Your task to perform on an android device: toggle priority inbox in the gmail app Image 0: 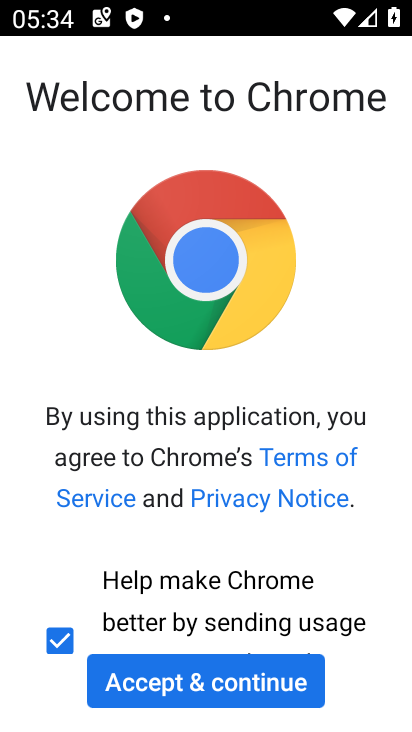
Step 0: click (197, 678)
Your task to perform on an android device: toggle priority inbox in the gmail app Image 1: 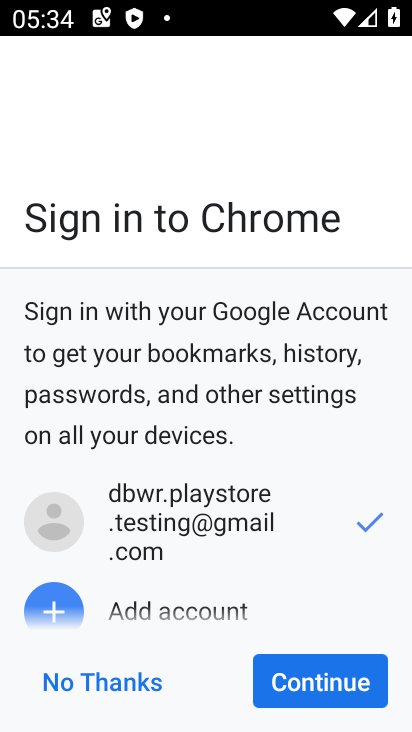
Step 1: click (319, 678)
Your task to perform on an android device: toggle priority inbox in the gmail app Image 2: 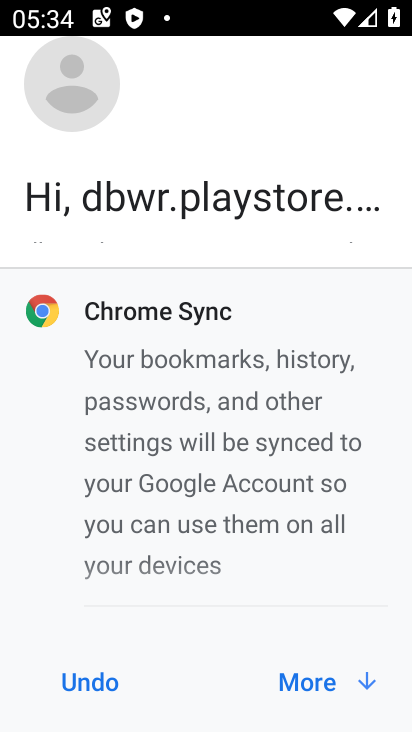
Step 2: click (319, 678)
Your task to perform on an android device: toggle priority inbox in the gmail app Image 3: 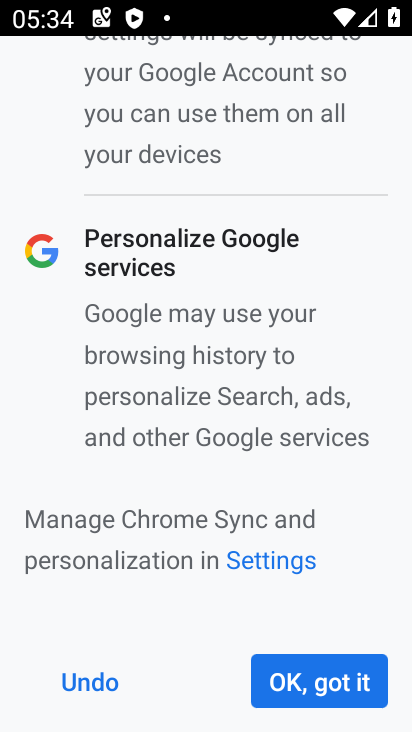
Step 3: click (319, 678)
Your task to perform on an android device: toggle priority inbox in the gmail app Image 4: 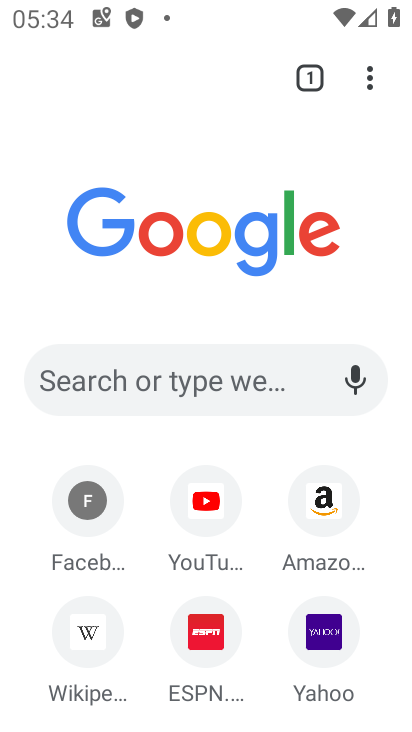
Step 4: drag from (251, 625) to (229, 298)
Your task to perform on an android device: toggle priority inbox in the gmail app Image 5: 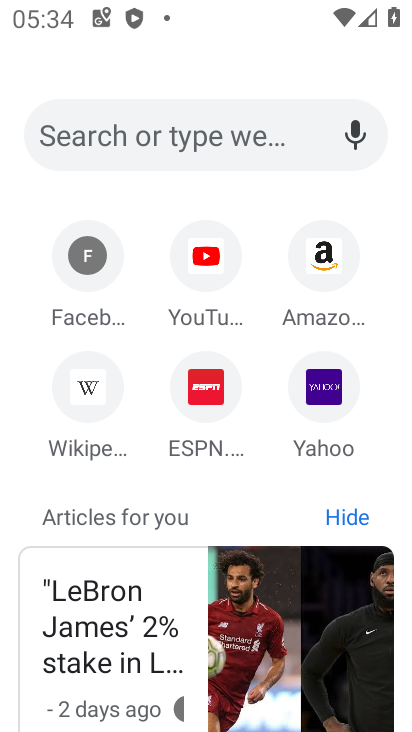
Step 5: press home button
Your task to perform on an android device: toggle priority inbox in the gmail app Image 6: 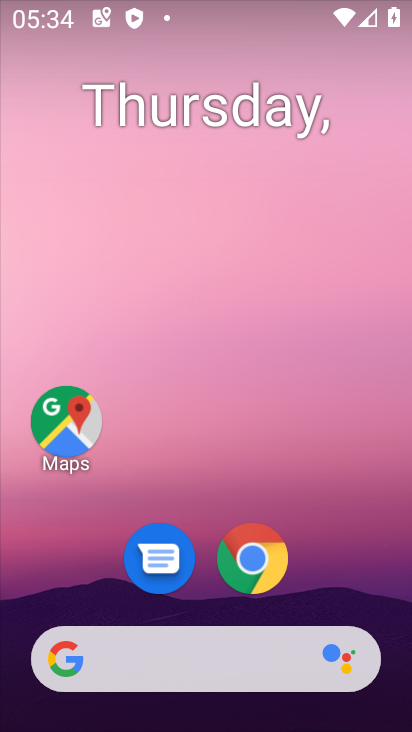
Step 6: drag from (323, 597) to (301, 206)
Your task to perform on an android device: toggle priority inbox in the gmail app Image 7: 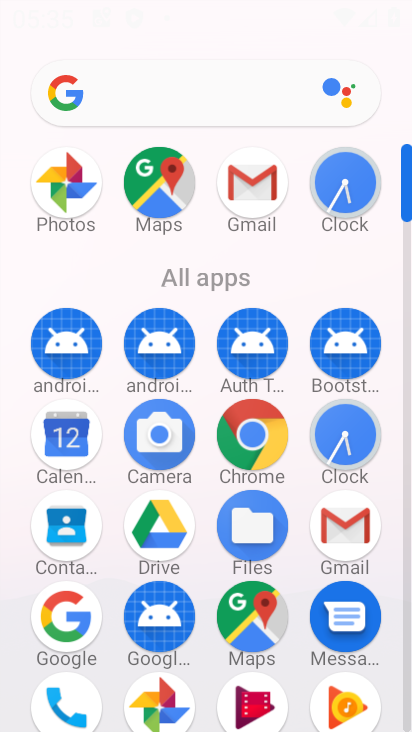
Step 7: click (247, 215)
Your task to perform on an android device: toggle priority inbox in the gmail app Image 8: 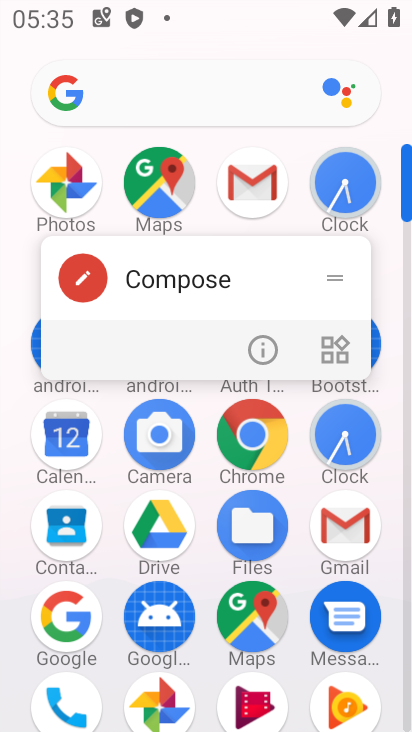
Step 8: click (247, 206)
Your task to perform on an android device: toggle priority inbox in the gmail app Image 9: 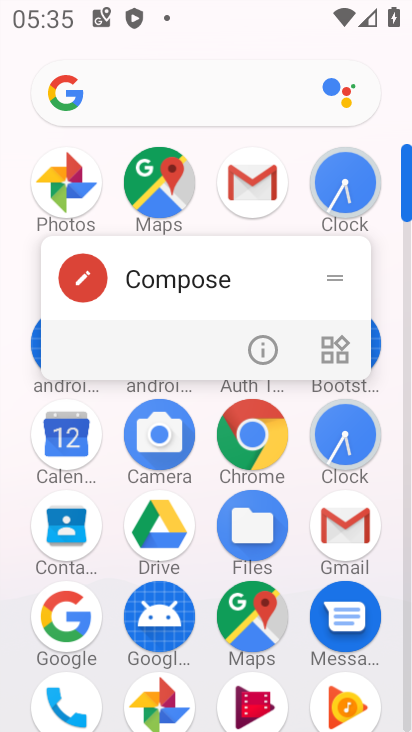
Step 9: click (249, 179)
Your task to perform on an android device: toggle priority inbox in the gmail app Image 10: 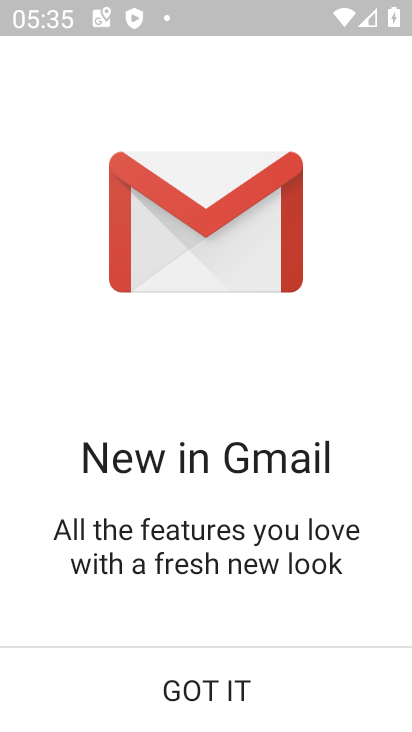
Step 10: click (181, 694)
Your task to perform on an android device: toggle priority inbox in the gmail app Image 11: 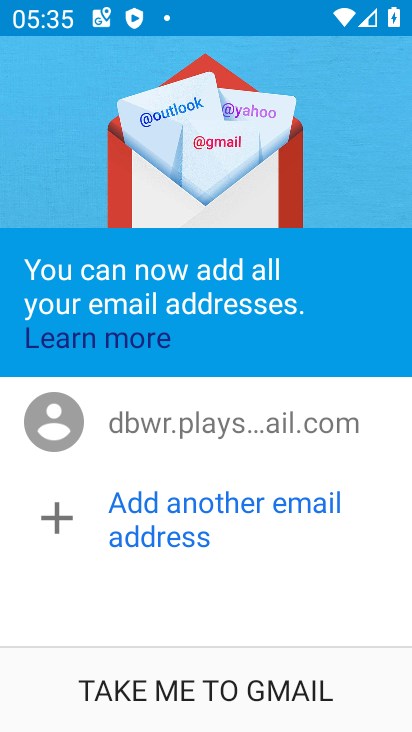
Step 11: click (180, 692)
Your task to perform on an android device: toggle priority inbox in the gmail app Image 12: 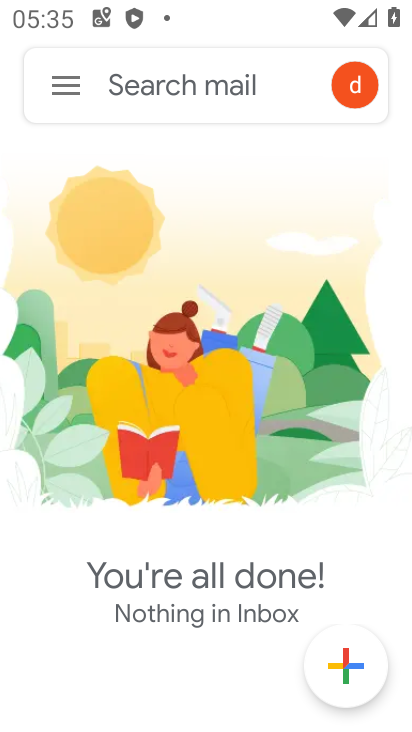
Step 12: click (61, 80)
Your task to perform on an android device: toggle priority inbox in the gmail app Image 13: 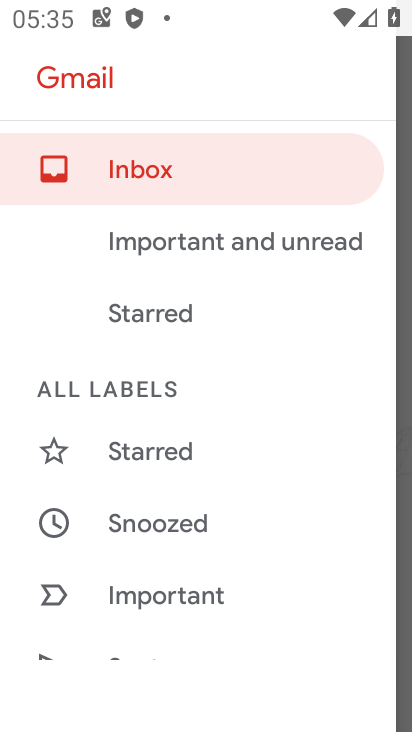
Step 13: drag from (174, 614) to (208, 301)
Your task to perform on an android device: toggle priority inbox in the gmail app Image 14: 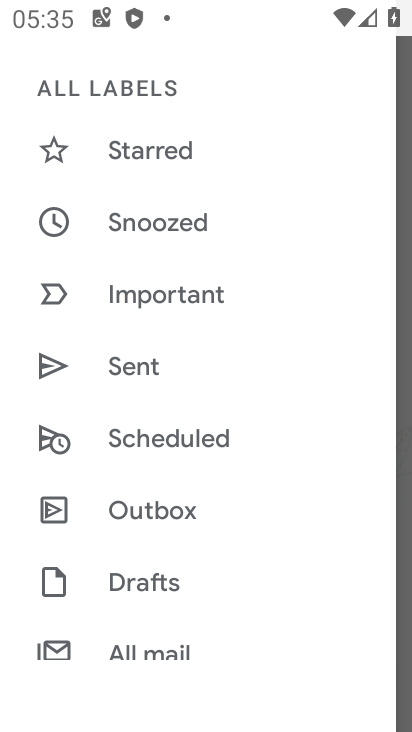
Step 14: drag from (189, 616) to (184, 311)
Your task to perform on an android device: toggle priority inbox in the gmail app Image 15: 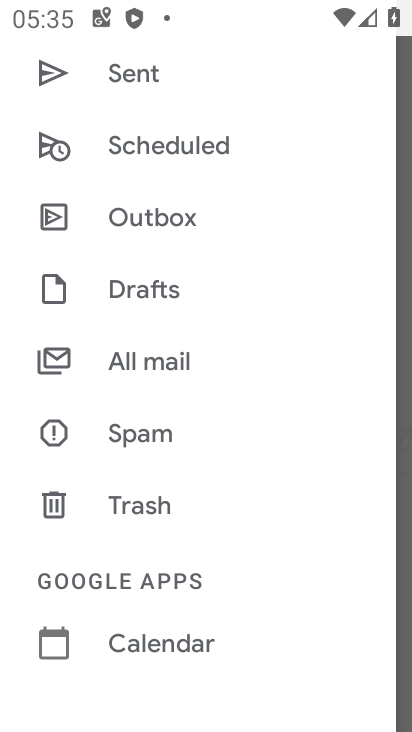
Step 15: drag from (216, 601) to (214, 262)
Your task to perform on an android device: toggle priority inbox in the gmail app Image 16: 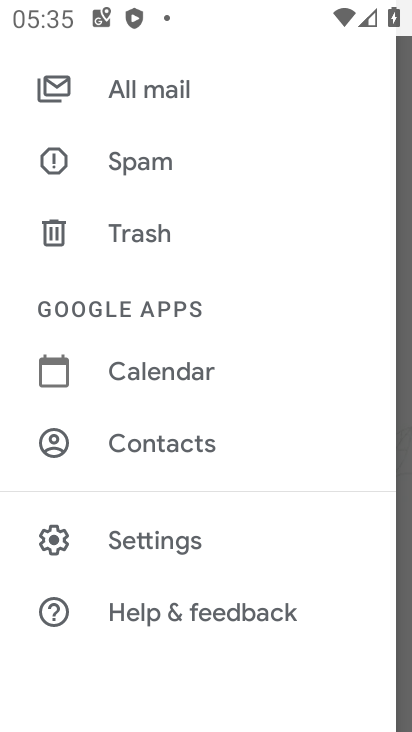
Step 16: click (173, 542)
Your task to perform on an android device: toggle priority inbox in the gmail app Image 17: 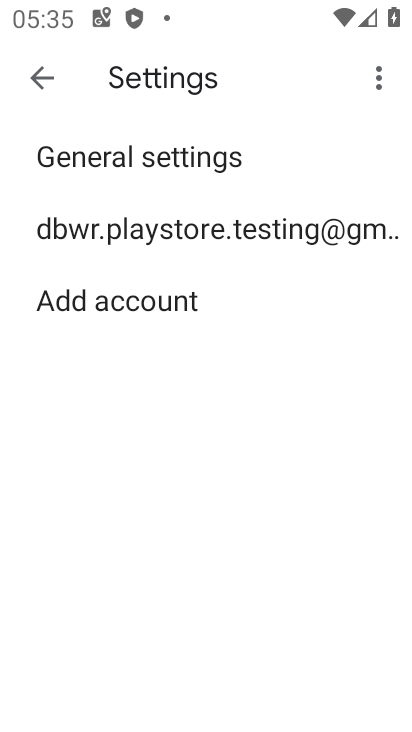
Step 17: click (227, 239)
Your task to perform on an android device: toggle priority inbox in the gmail app Image 18: 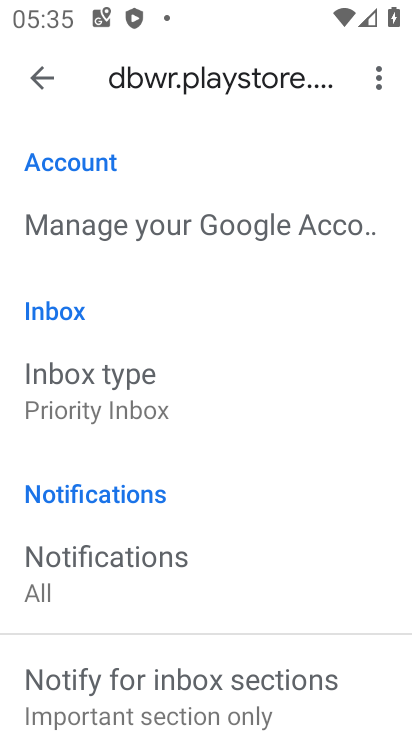
Step 18: click (109, 391)
Your task to perform on an android device: toggle priority inbox in the gmail app Image 19: 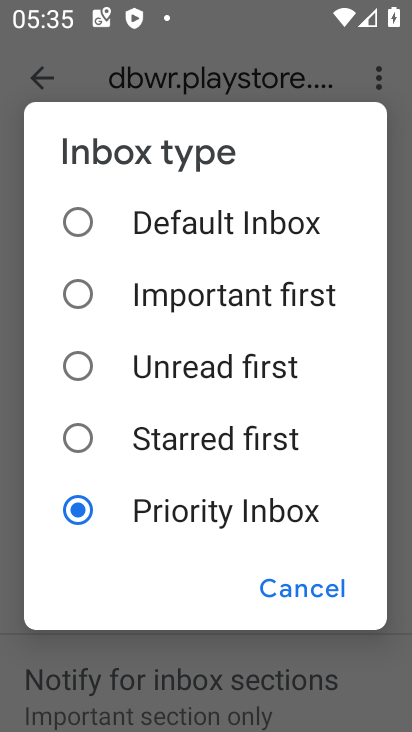
Step 19: click (80, 229)
Your task to perform on an android device: toggle priority inbox in the gmail app Image 20: 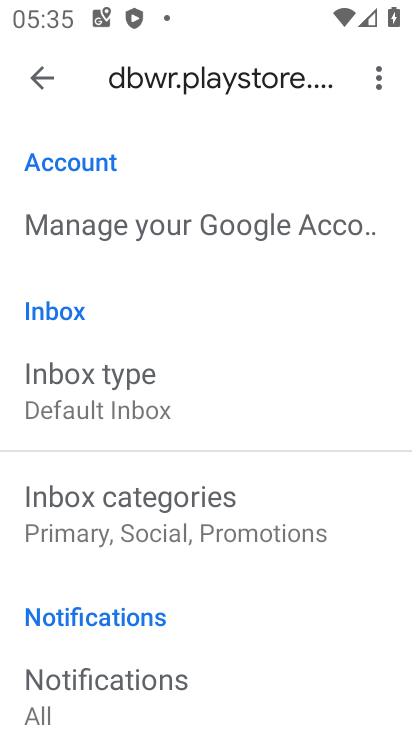
Step 20: task complete